Your task to perform on an android device: Open my contact list Image 0: 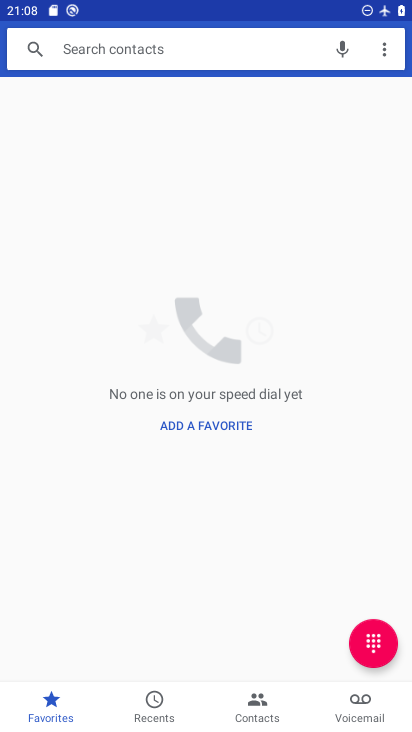
Step 0: press home button
Your task to perform on an android device: Open my contact list Image 1: 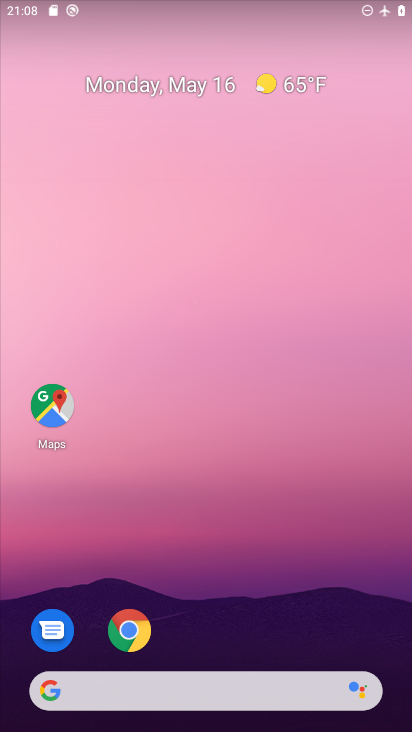
Step 1: drag from (214, 644) to (191, 163)
Your task to perform on an android device: Open my contact list Image 2: 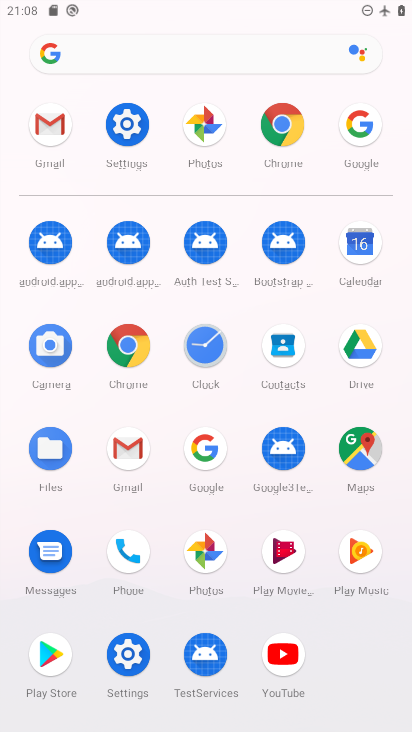
Step 2: click (268, 344)
Your task to perform on an android device: Open my contact list Image 3: 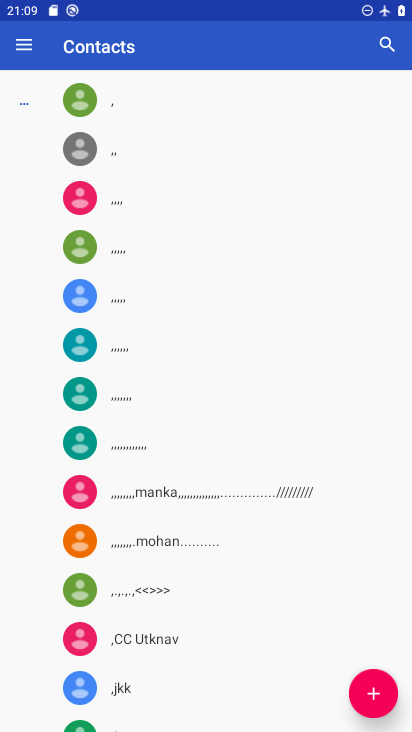
Step 3: task complete